Your task to perform on an android device: turn off notifications settings in the gmail app Image 0: 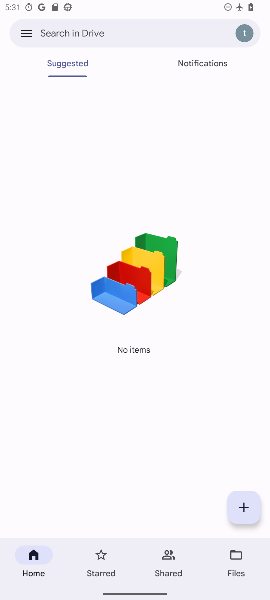
Step 0: drag from (156, 367) to (178, 116)
Your task to perform on an android device: turn off notifications settings in the gmail app Image 1: 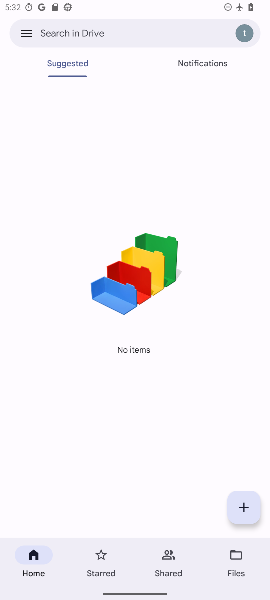
Step 1: press home button
Your task to perform on an android device: turn off notifications settings in the gmail app Image 2: 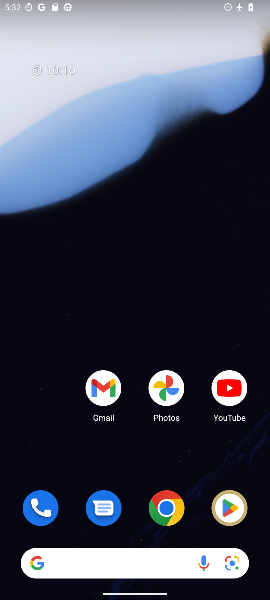
Step 2: drag from (143, 523) to (150, 32)
Your task to perform on an android device: turn off notifications settings in the gmail app Image 3: 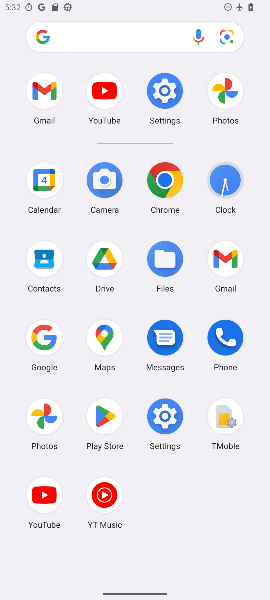
Step 3: click (215, 261)
Your task to perform on an android device: turn off notifications settings in the gmail app Image 4: 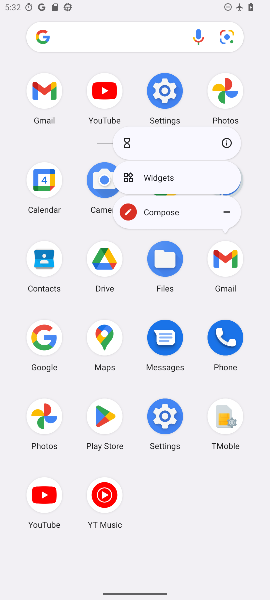
Step 4: click (224, 136)
Your task to perform on an android device: turn off notifications settings in the gmail app Image 5: 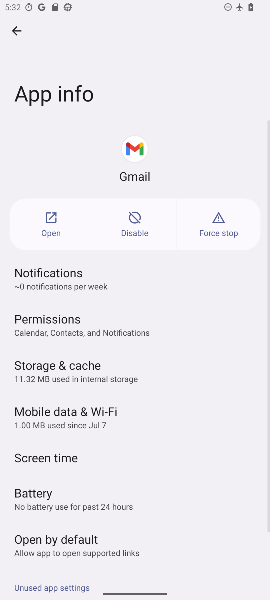
Step 5: click (61, 221)
Your task to perform on an android device: turn off notifications settings in the gmail app Image 6: 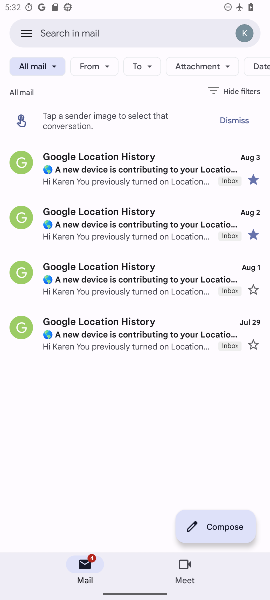
Step 6: drag from (139, 443) to (107, 202)
Your task to perform on an android device: turn off notifications settings in the gmail app Image 7: 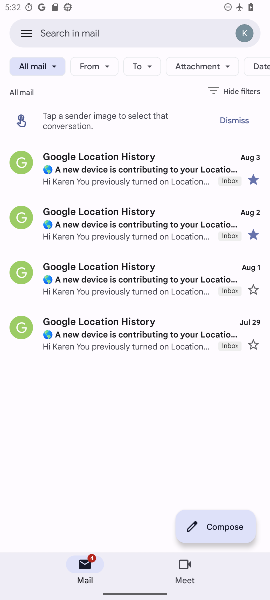
Step 7: drag from (109, 505) to (122, 298)
Your task to perform on an android device: turn off notifications settings in the gmail app Image 8: 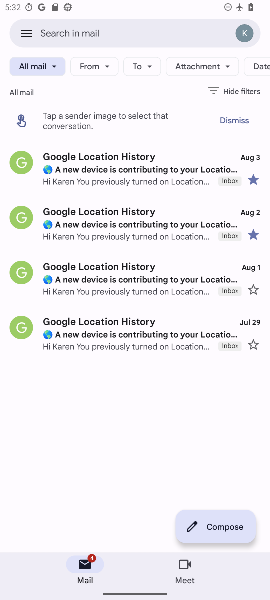
Step 8: click (20, 30)
Your task to perform on an android device: turn off notifications settings in the gmail app Image 9: 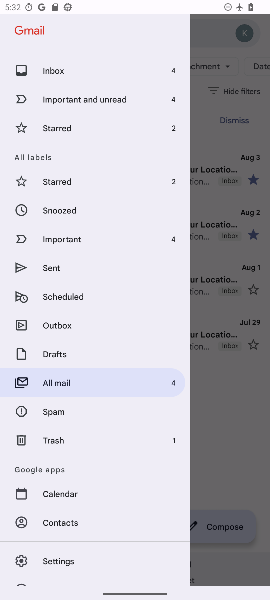
Step 9: click (53, 565)
Your task to perform on an android device: turn off notifications settings in the gmail app Image 10: 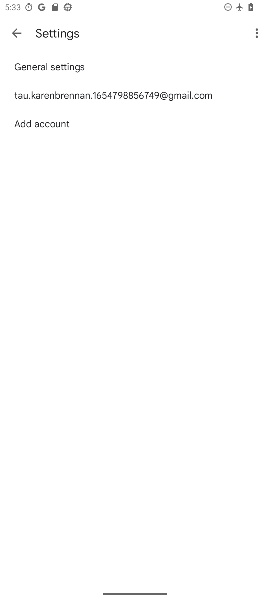
Step 10: click (113, 97)
Your task to perform on an android device: turn off notifications settings in the gmail app Image 11: 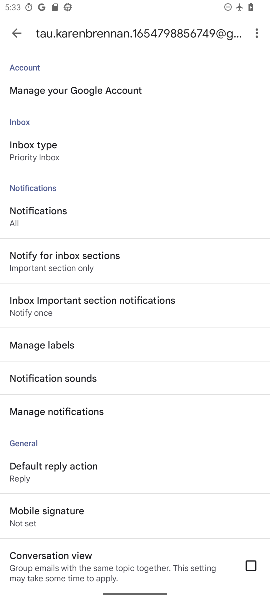
Step 11: click (84, 415)
Your task to perform on an android device: turn off notifications settings in the gmail app Image 12: 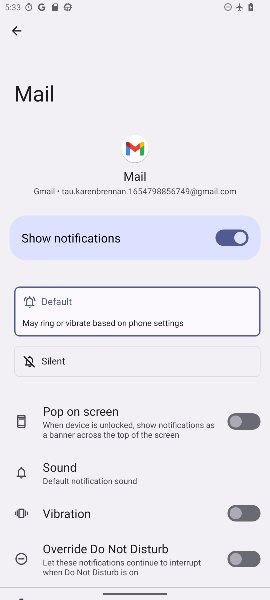
Step 12: drag from (143, 508) to (116, 185)
Your task to perform on an android device: turn off notifications settings in the gmail app Image 13: 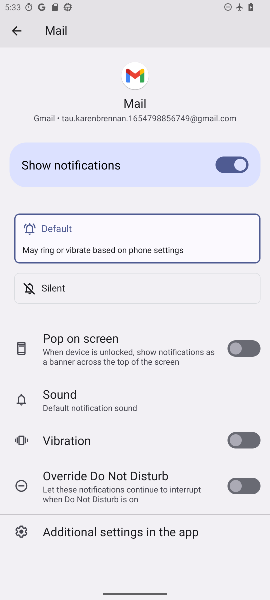
Step 13: click (233, 168)
Your task to perform on an android device: turn off notifications settings in the gmail app Image 14: 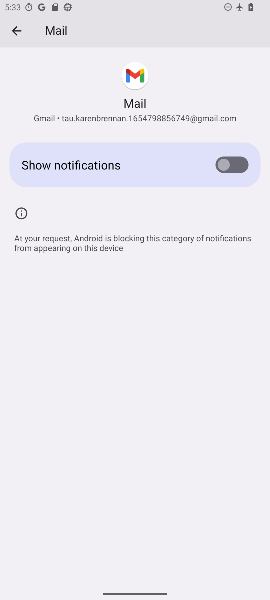
Step 14: task complete